Your task to perform on an android device: change the clock display to digital Image 0: 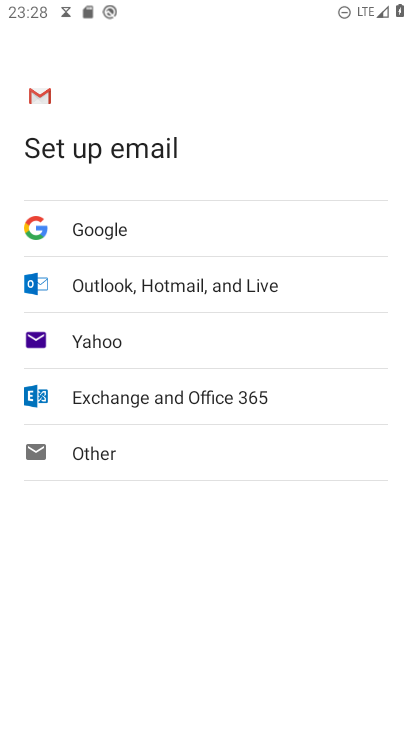
Step 0: press home button
Your task to perform on an android device: change the clock display to digital Image 1: 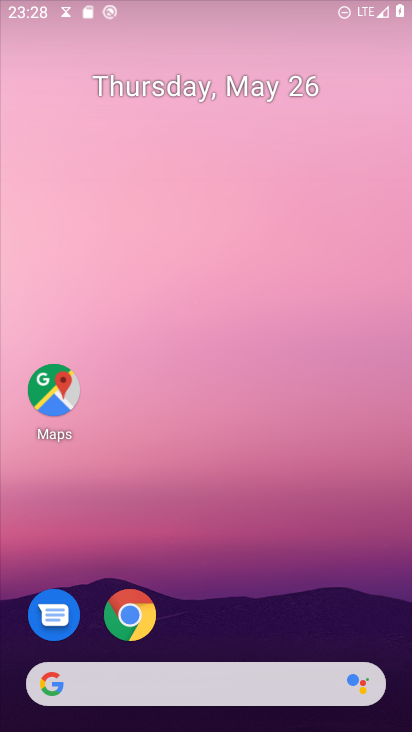
Step 1: drag from (258, 611) to (250, 222)
Your task to perform on an android device: change the clock display to digital Image 2: 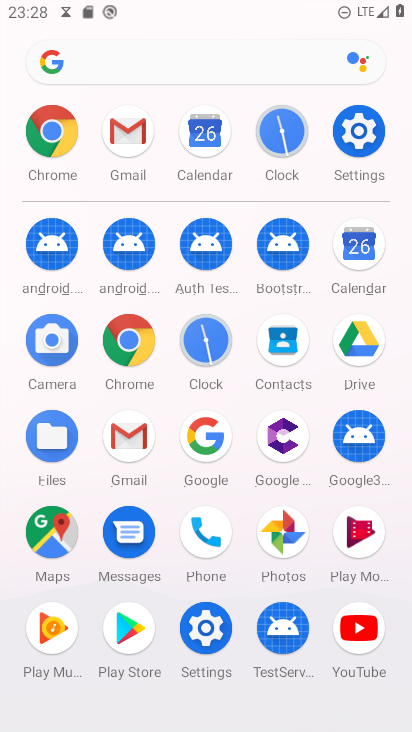
Step 2: click (280, 135)
Your task to perform on an android device: change the clock display to digital Image 3: 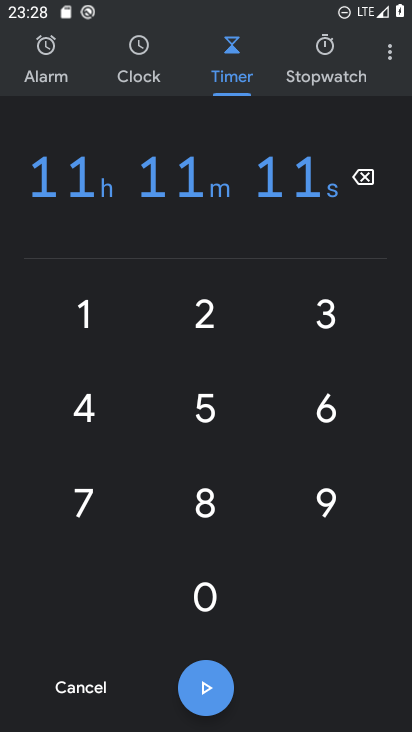
Step 3: click (387, 61)
Your task to perform on an android device: change the clock display to digital Image 4: 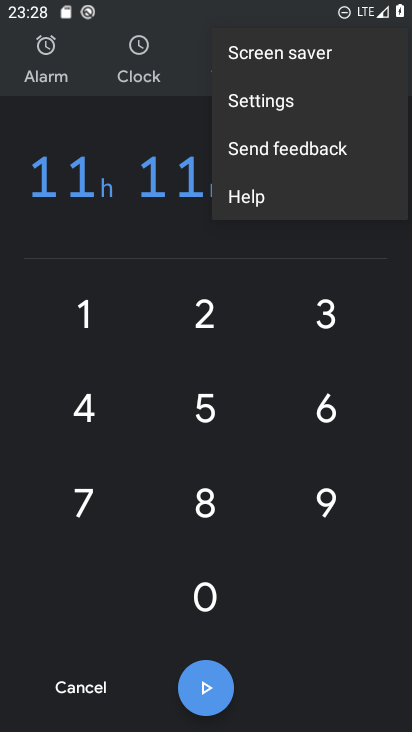
Step 4: click (251, 95)
Your task to perform on an android device: change the clock display to digital Image 5: 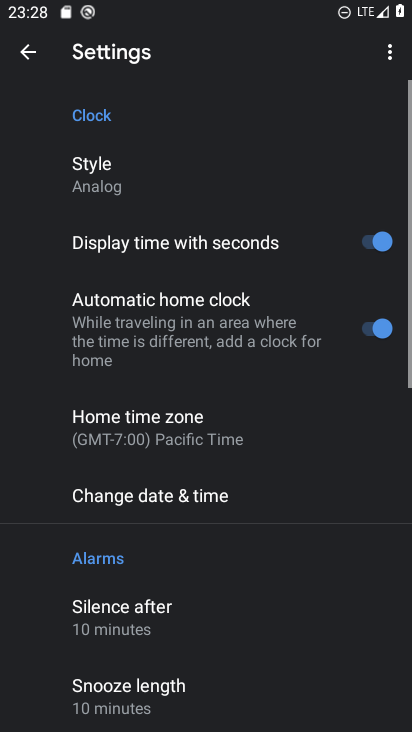
Step 5: click (131, 192)
Your task to perform on an android device: change the clock display to digital Image 6: 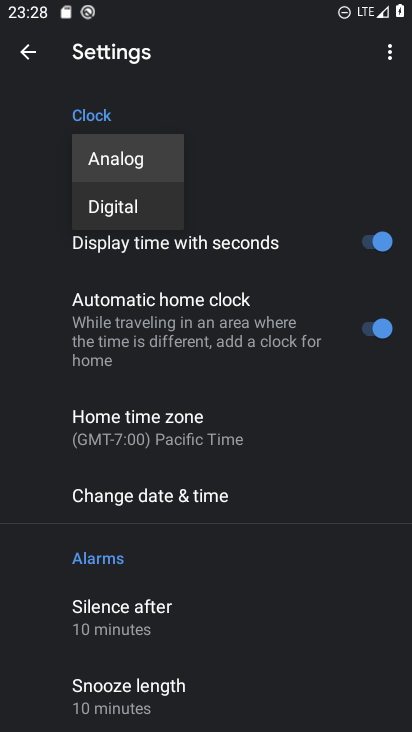
Step 6: click (120, 204)
Your task to perform on an android device: change the clock display to digital Image 7: 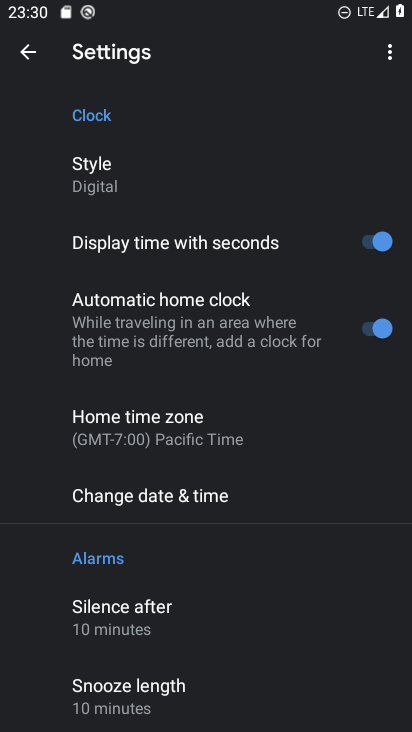
Step 7: task complete